Your task to perform on an android device: open a bookmark in the chrome app Image 0: 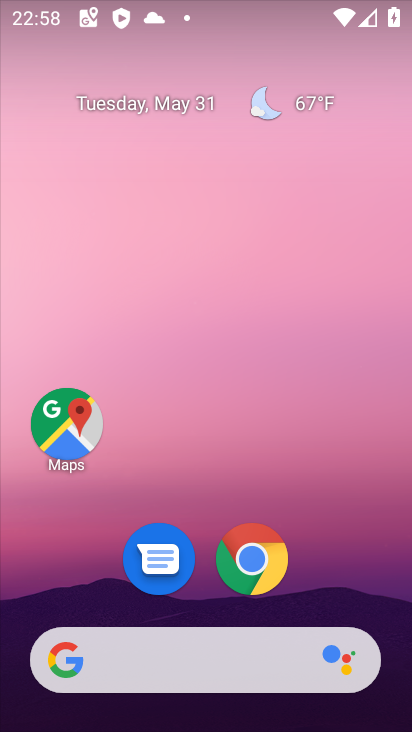
Step 0: click (257, 564)
Your task to perform on an android device: open a bookmark in the chrome app Image 1: 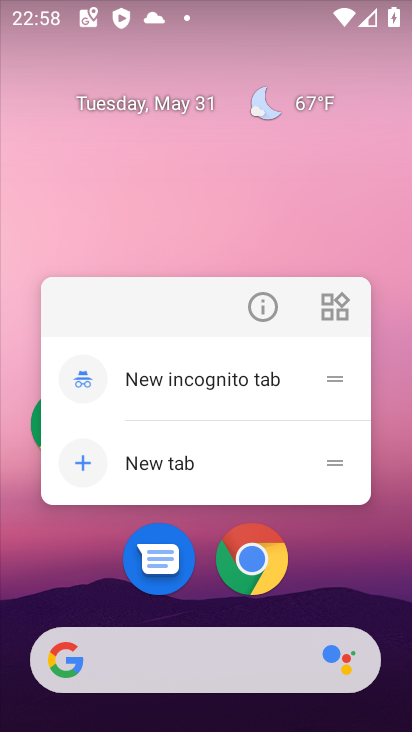
Step 1: click (257, 564)
Your task to perform on an android device: open a bookmark in the chrome app Image 2: 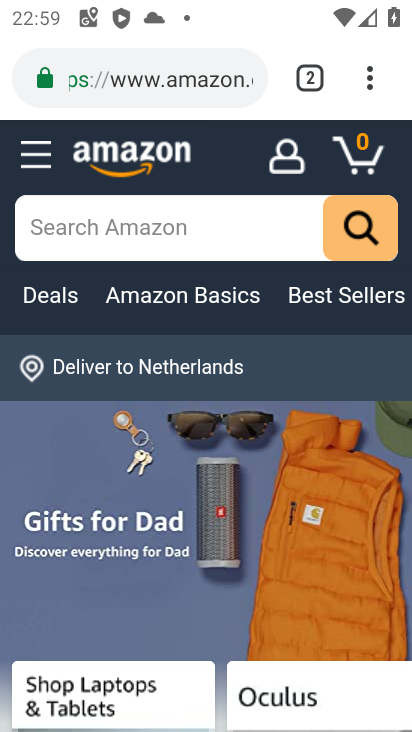
Step 2: click (369, 77)
Your task to perform on an android device: open a bookmark in the chrome app Image 3: 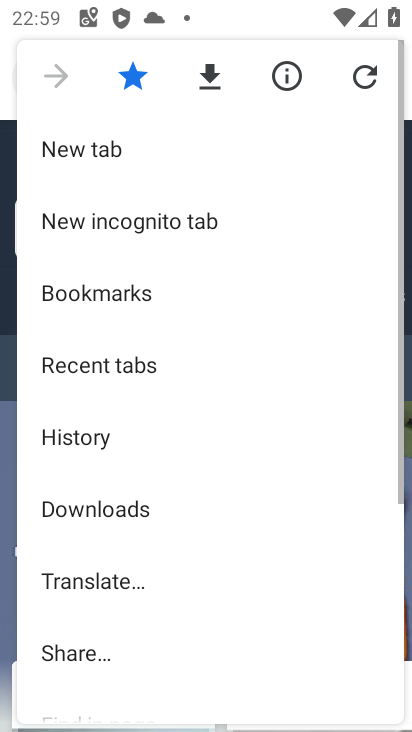
Step 3: click (107, 287)
Your task to perform on an android device: open a bookmark in the chrome app Image 4: 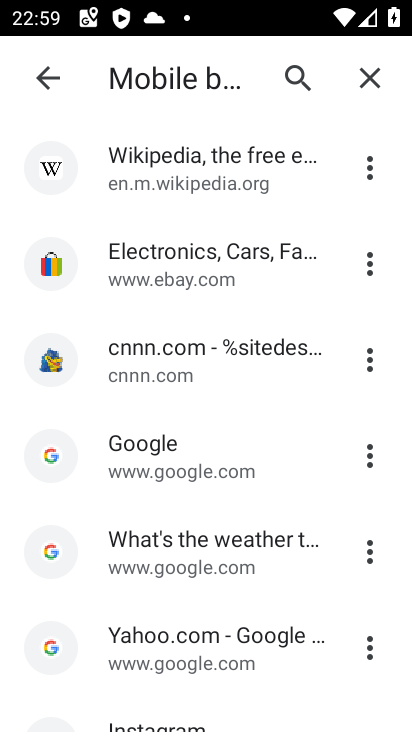
Step 4: click (184, 191)
Your task to perform on an android device: open a bookmark in the chrome app Image 5: 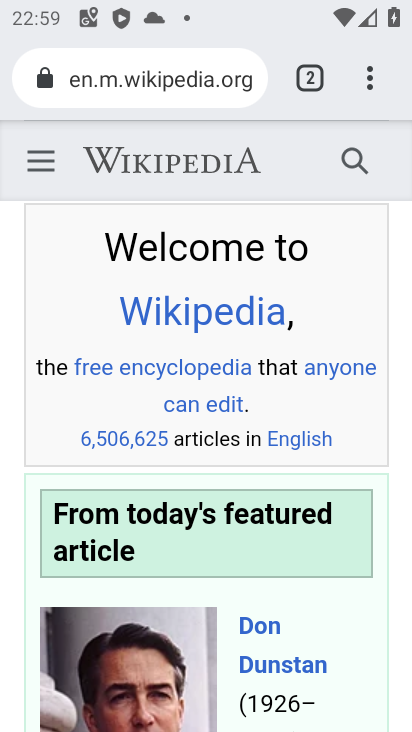
Step 5: task complete